Your task to perform on an android device: turn vacation reply on in the gmail app Image 0: 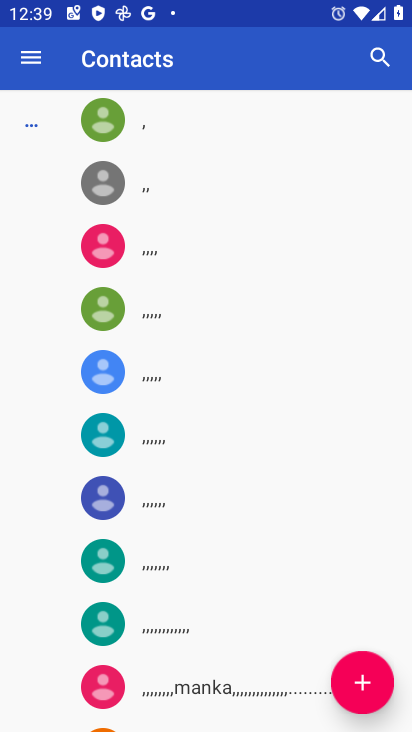
Step 0: press back button
Your task to perform on an android device: turn vacation reply on in the gmail app Image 1: 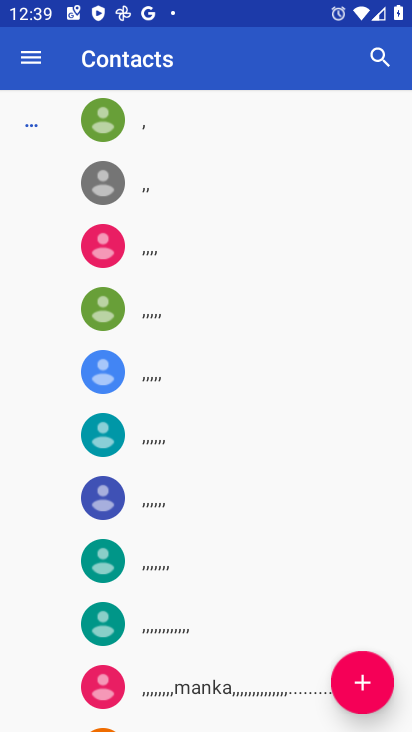
Step 1: press back button
Your task to perform on an android device: turn vacation reply on in the gmail app Image 2: 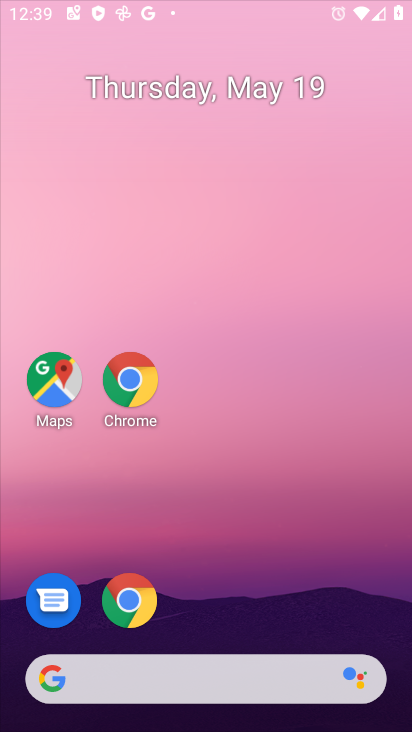
Step 2: press back button
Your task to perform on an android device: turn vacation reply on in the gmail app Image 3: 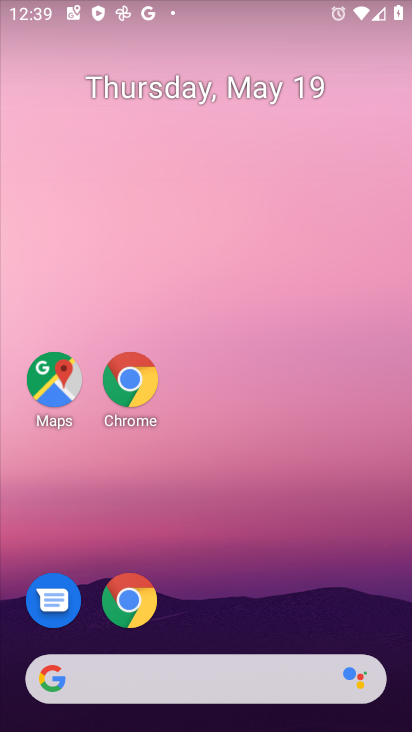
Step 3: press back button
Your task to perform on an android device: turn vacation reply on in the gmail app Image 4: 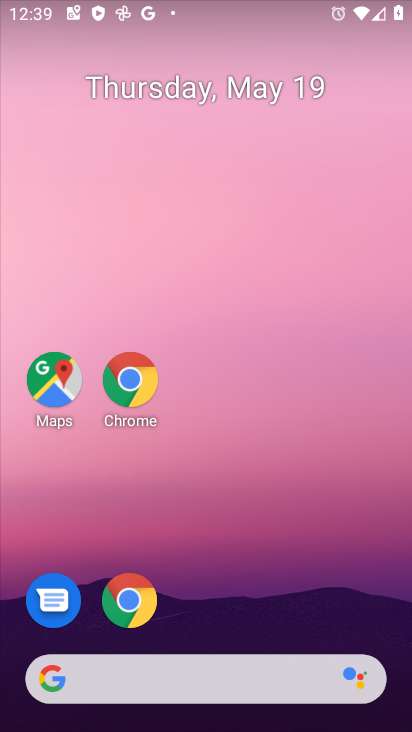
Step 4: drag from (258, 692) to (17, 101)
Your task to perform on an android device: turn vacation reply on in the gmail app Image 5: 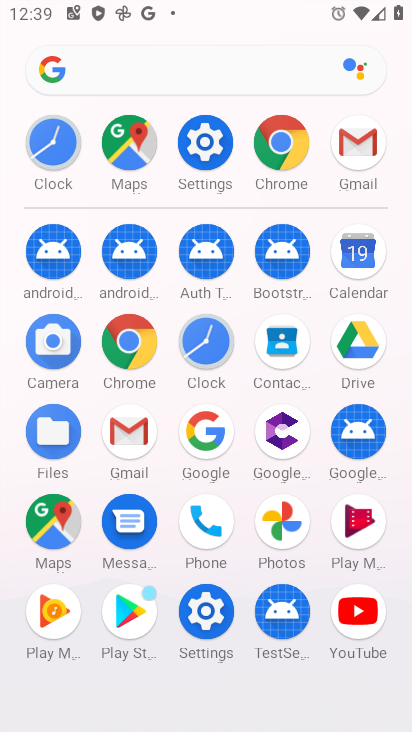
Step 5: click (137, 434)
Your task to perform on an android device: turn vacation reply on in the gmail app Image 6: 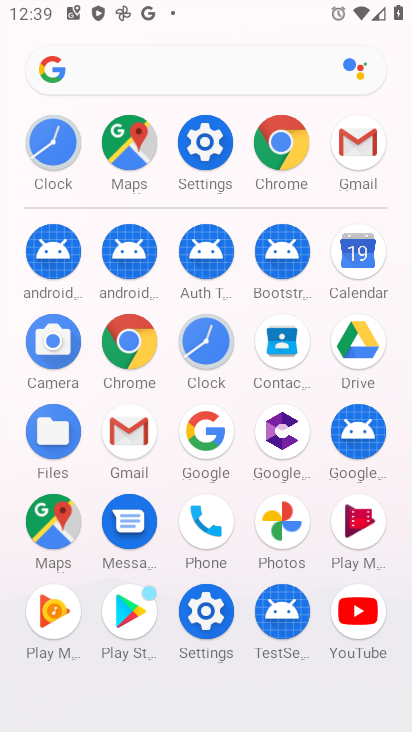
Step 6: click (134, 436)
Your task to perform on an android device: turn vacation reply on in the gmail app Image 7: 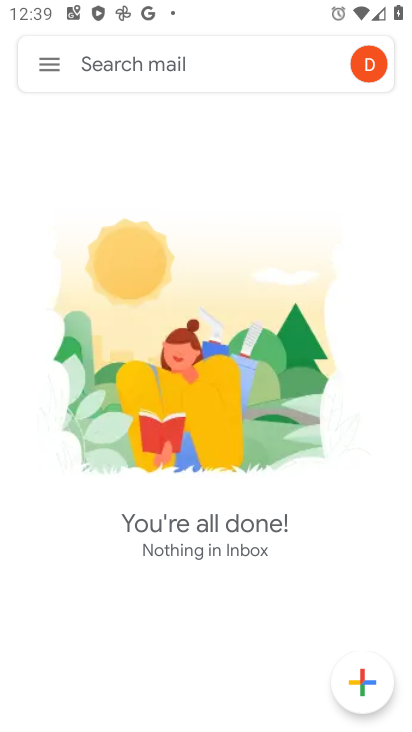
Step 7: click (131, 435)
Your task to perform on an android device: turn vacation reply on in the gmail app Image 8: 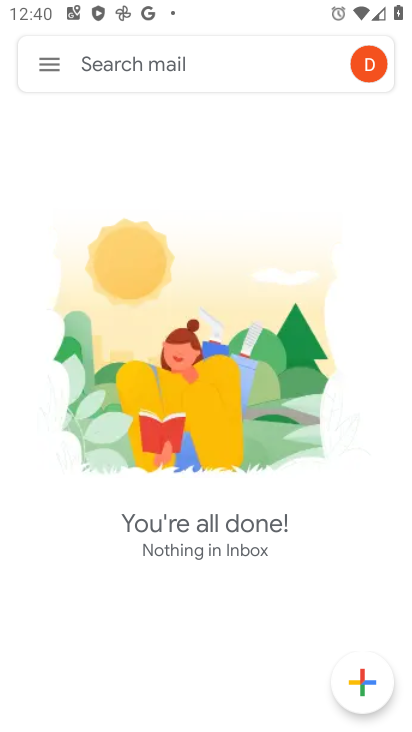
Step 8: click (61, 70)
Your task to perform on an android device: turn vacation reply on in the gmail app Image 9: 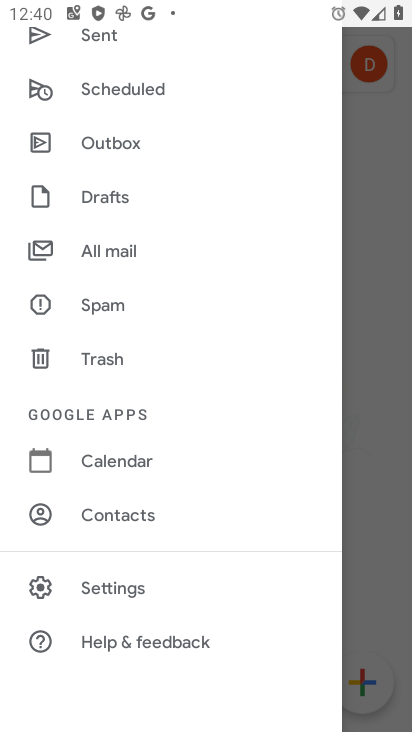
Step 9: click (102, 585)
Your task to perform on an android device: turn vacation reply on in the gmail app Image 10: 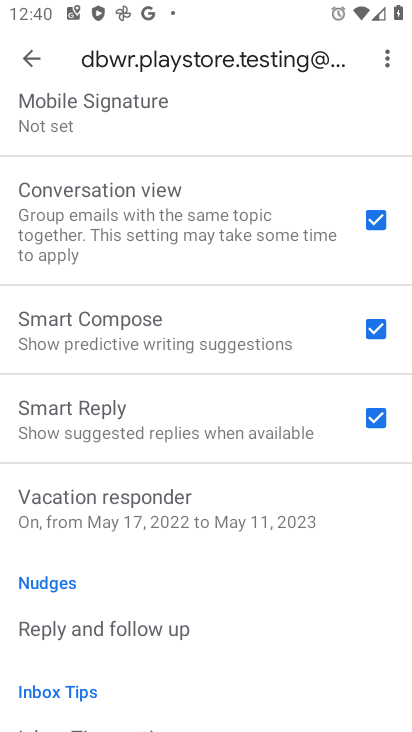
Step 10: click (20, 80)
Your task to perform on an android device: turn vacation reply on in the gmail app Image 11: 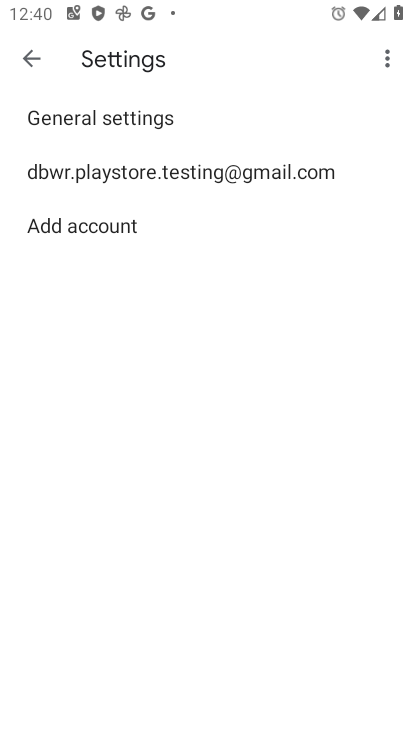
Step 11: click (132, 176)
Your task to perform on an android device: turn vacation reply on in the gmail app Image 12: 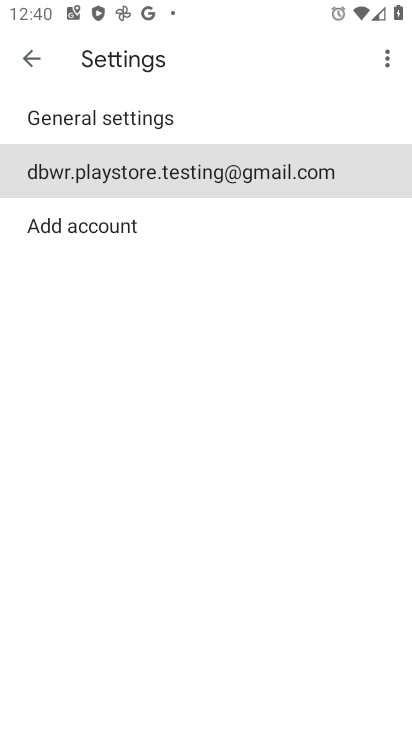
Step 12: click (127, 175)
Your task to perform on an android device: turn vacation reply on in the gmail app Image 13: 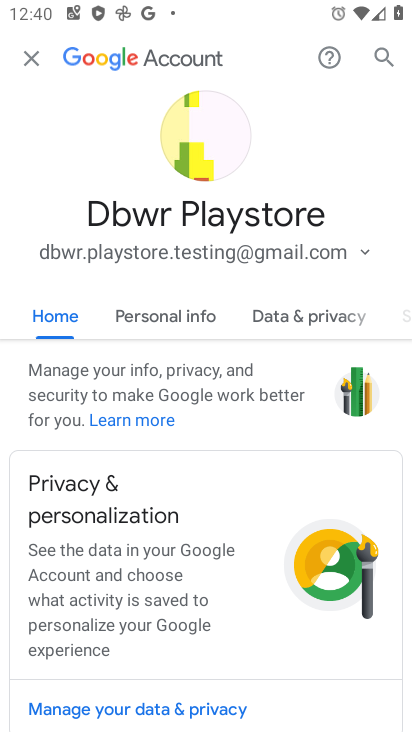
Step 13: drag from (99, 500) to (106, 51)
Your task to perform on an android device: turn vacation reply on in the gmail app Image 14: 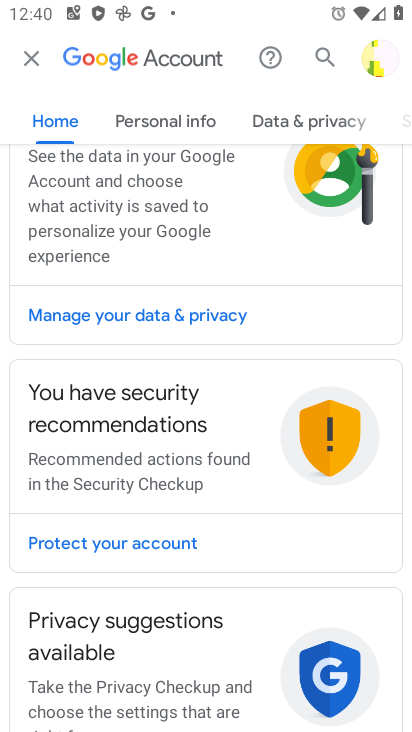
Step 14: drag from (155, 427) to (106, 317)
Your task to perform on an android device: turn vacation reply on in the gmail app Image 15: 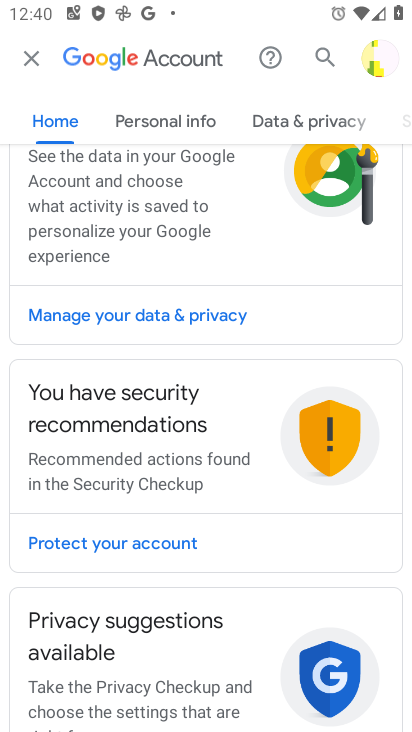
Step 15: click (35, 62)
Your task to perform on an android device: turn vacation reply on in the gmail app Image 16: 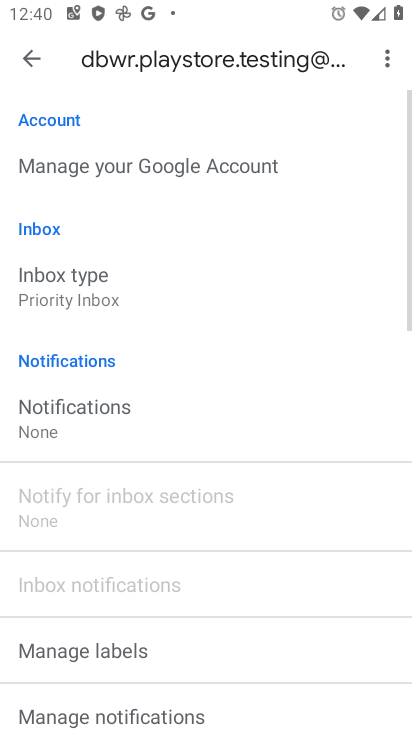
Step 16: drag from (105, 501) to (78, 161)
Your task to perform on an android device: turn vacation reply on in the gmail app Image 17: 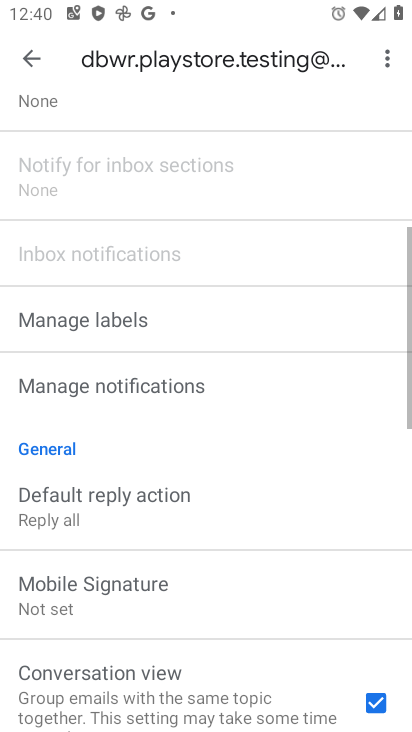
Step 17: drag from (96, 473) to (37, 114)
Your task to perform on an android device: turn vacation reply on in the gmail app Image 18: 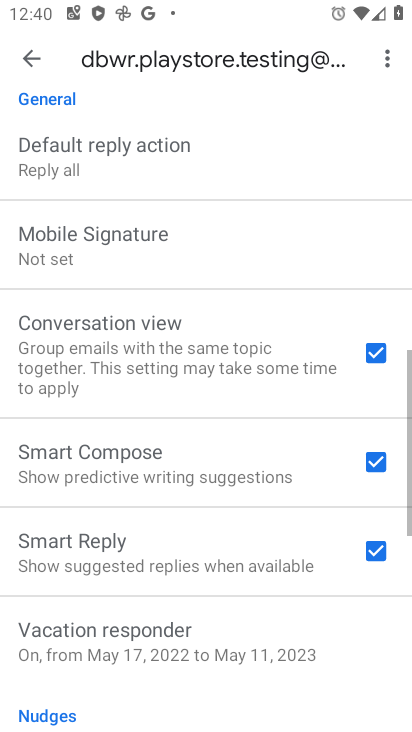
Step 18: drag from (154, 516) to (158, 166)
Your task to perform on an android device: turn vacation reply on in the gmail app Image 19: 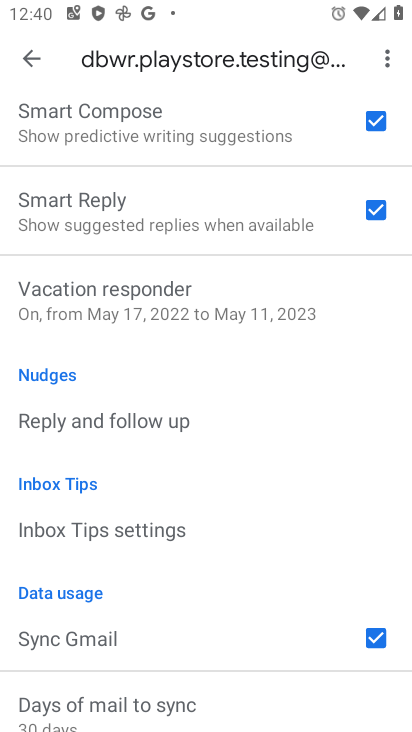
Step 19: click (148, 290)
Your task to perform on an android device: turn vacation reply on in the gmail app Image 20: 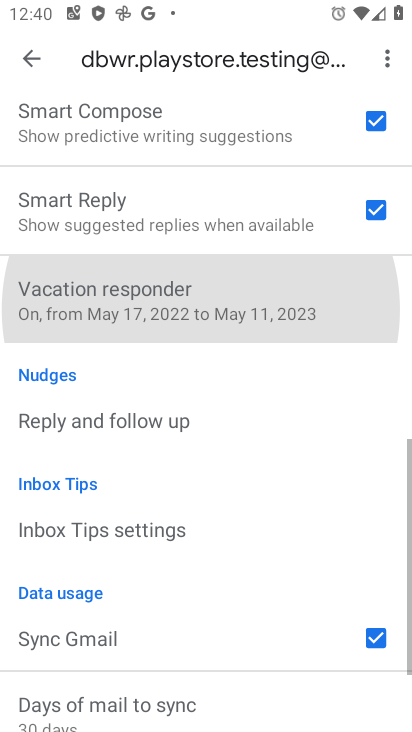
Step 20: click (149, 296)
Your task to perform on an android device: turn vacation reply on in the gmail app Image 21: 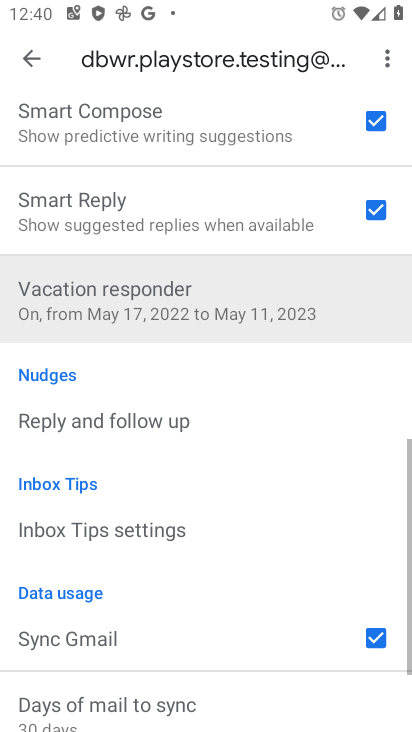
Step 21: click (157, 307)
Your task to perform on an android device: turn vacation reply on in the gmail app Image 22: 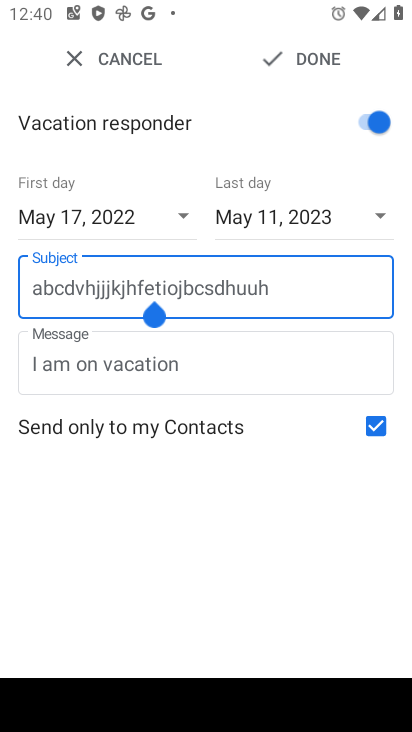
Step 22: task complete